Your task to perform on an android device: turn notification dots off Image 0: 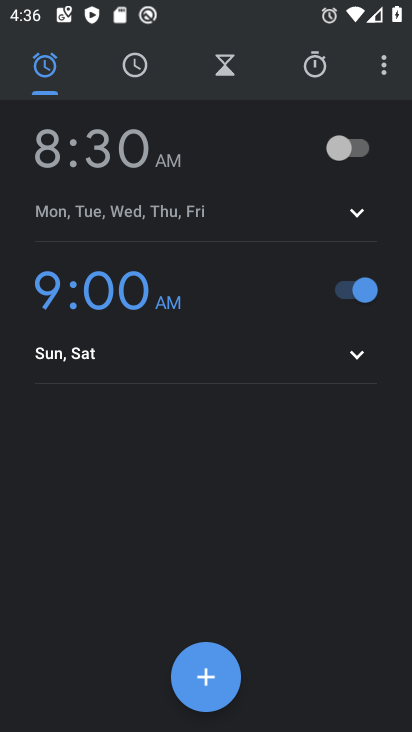
Step 0: press home button
Your task to perform on an android device: turn notification dots off Image 1: 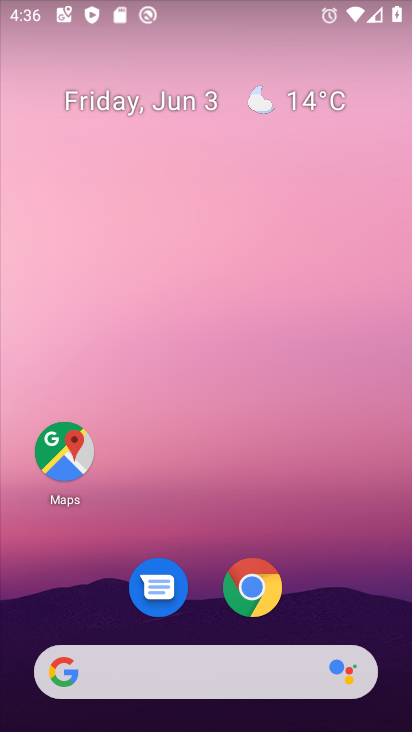
Step 1: drag from (92, 645) to (147, 91)
Your task to perform on an android device: turn notification dots off Image 2: 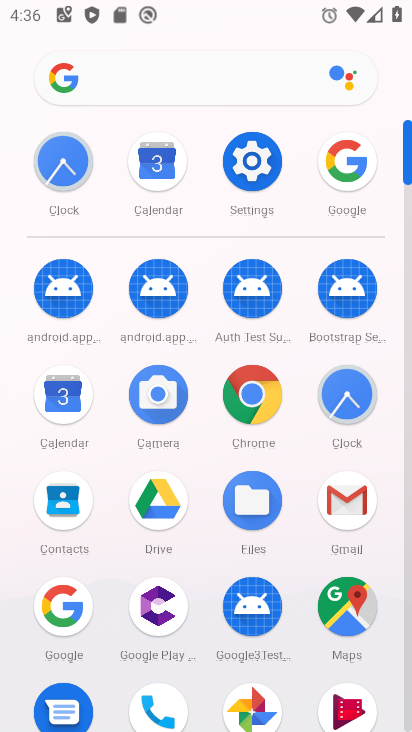
Step 2: click (264, 155)
Your task to perform on an android device: turn notification dots off Image 3: 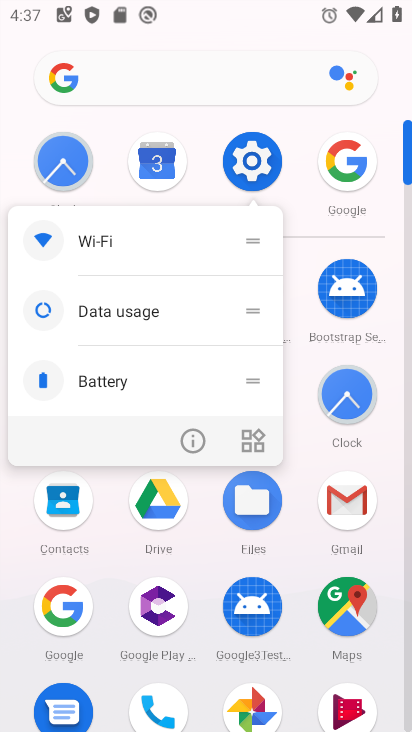
Step 3: click (260, 151)
Your task to perform on an android device: turn notification dots off Image 4: 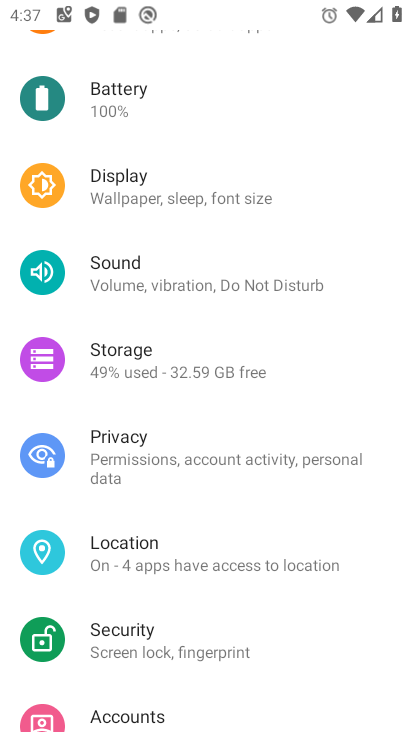
Step 4: drag from (146, 127) to (225, 505)
Your task to perform on an android device: turn notification dots off Image 5: 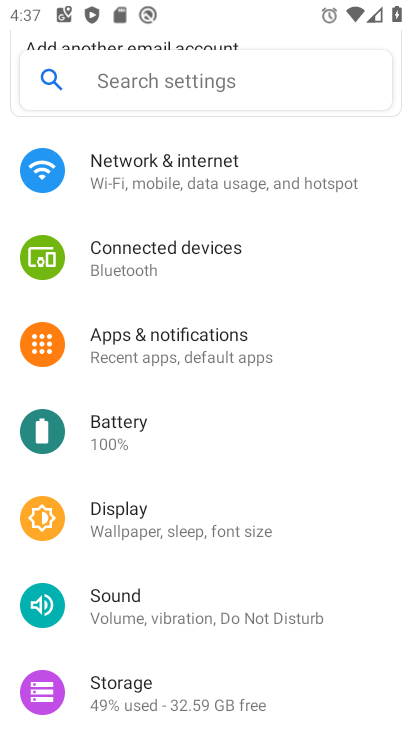
Step 5: click (155, 335)
Your task to perform on an android device: turn notification dots off Image 6: 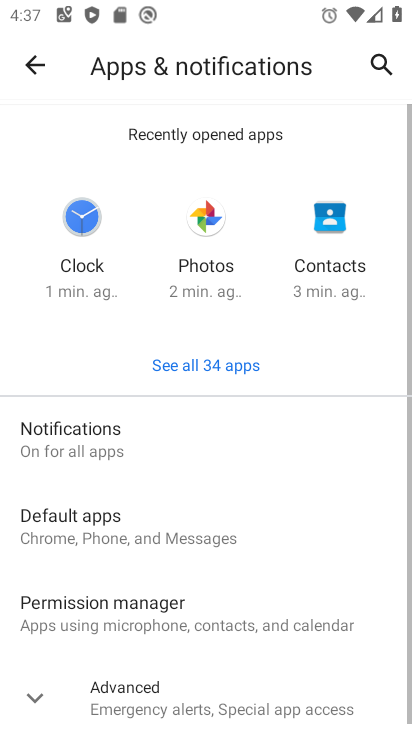
Step 6: click (90, 439)
Your task to perform on an android device: turn notification dots off Image 7: 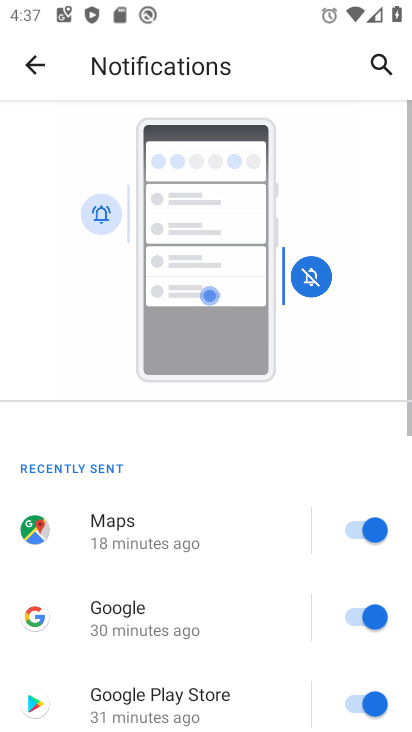
Step 7: drag from (122, 694) to (81, 289)
Your task to perform on an android device: turn notification dots off Image 8: 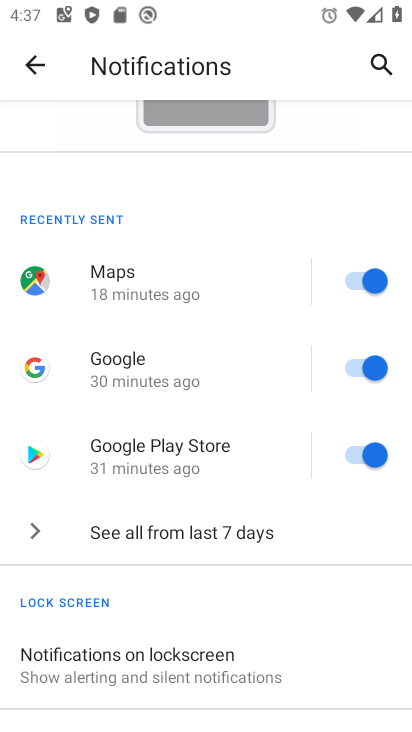
Step 8: drag from (166, 700) to (102, 273)
Your task to perform on an android device: turn notification dots off Image 9: 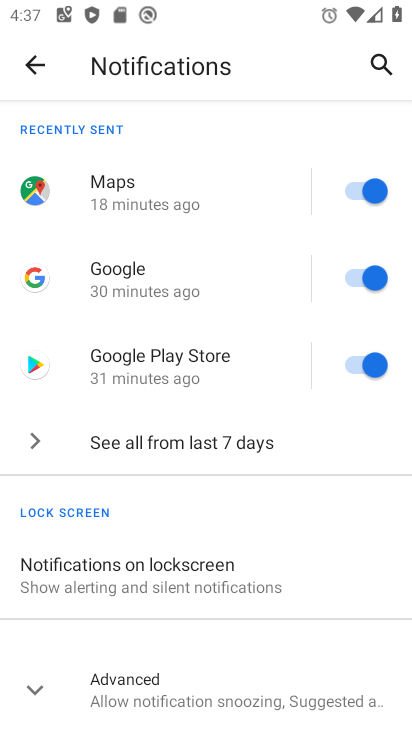
Step 9: click (209, 704)
Your task to perform on an android device: turn notification dots off Image 10: 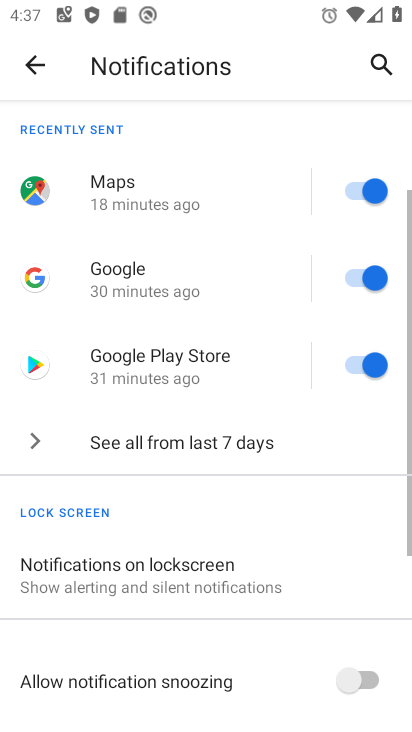
Step 10: task complete